Your task to perform on an android device: find photos in the google photos app Image 0: 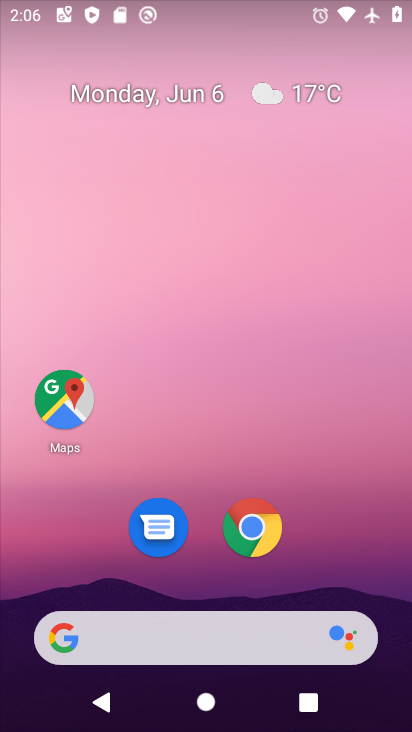
Step 0: drag from (198, 196) to (139, 22)
Your task to perform on an android device: find photos in the google photos app Image 1: 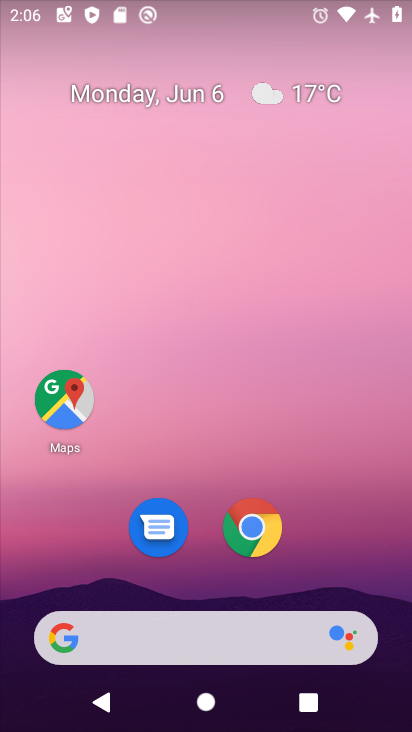
Step 1: drag from (307, 571) to (197, 11)
Your task to perform on an android device: find photos in the google photos app Image 2: 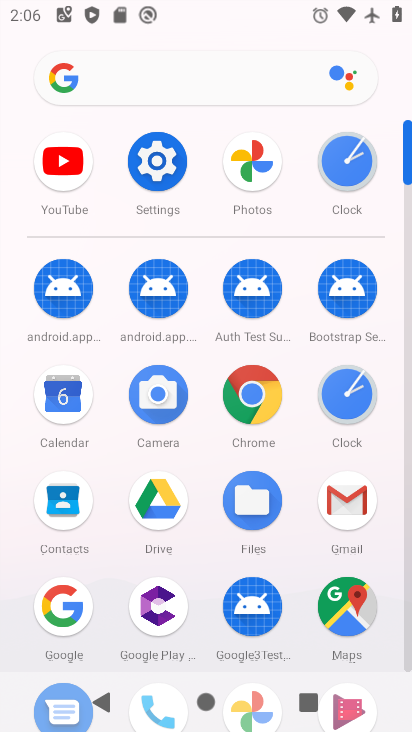
Step 2: drag from (277, 625) to (284, 184)
Your task to perform on an android device: find photos in the google photos app Image 3: 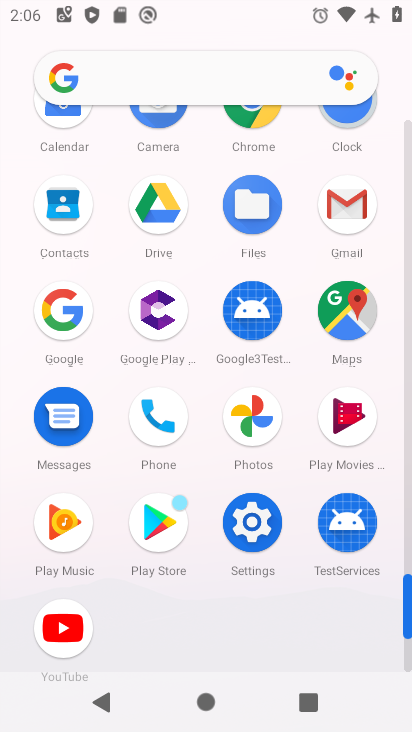
Step 3: click (246, 425)
Your task to perform on an android device: find photos in the google photos app Image 4: 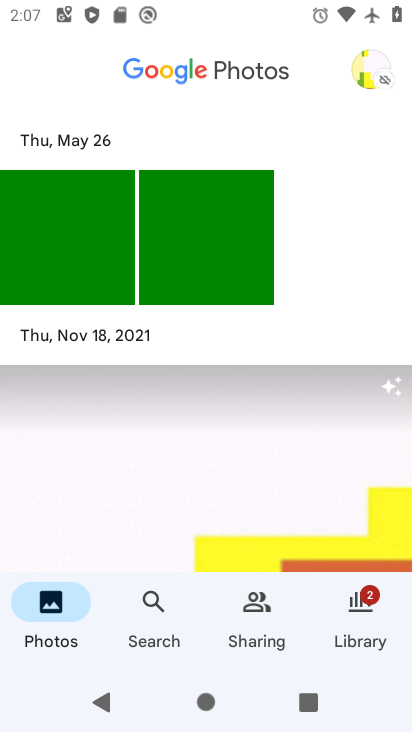
Step 4: task complete